Your task to perform on an android device: open app "Paramount+ | Peak Streaming" (install if not already installed) Image 0: 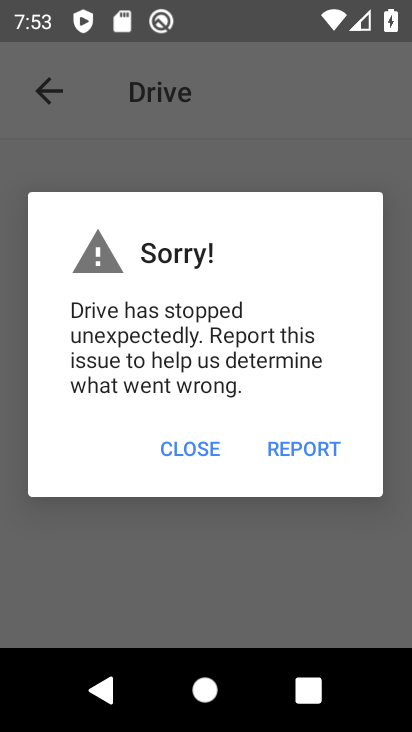
Step 0: press home button
Your task to perform on an android device: open app "Paramount+ | Peak Streaming" (install if not already installed) Image 1: 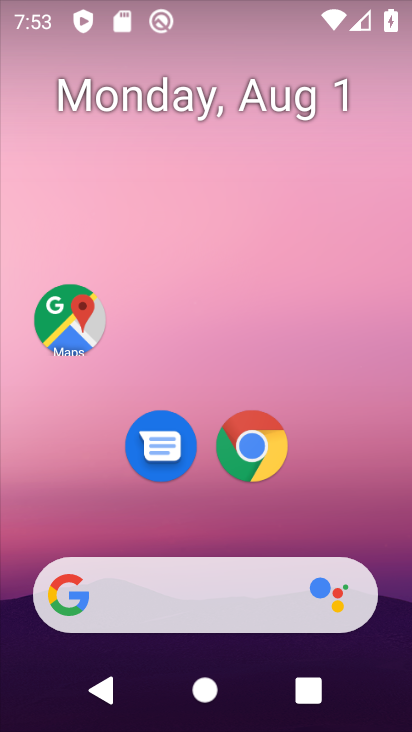
Step 1: drag from (216, 480) to (216, 202)
Your task to perform on an android device: open app "Paramount+ | Peak Streaming" (install if not already installed) Image 2: 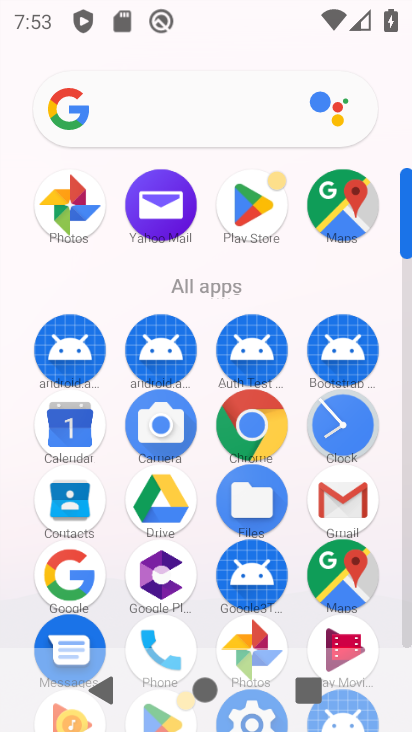
Step 2: click (240, 176)
Your task to perform on an android device: open app "Paramount+ | Peak Streaming" (install if not already installed) Image 3: 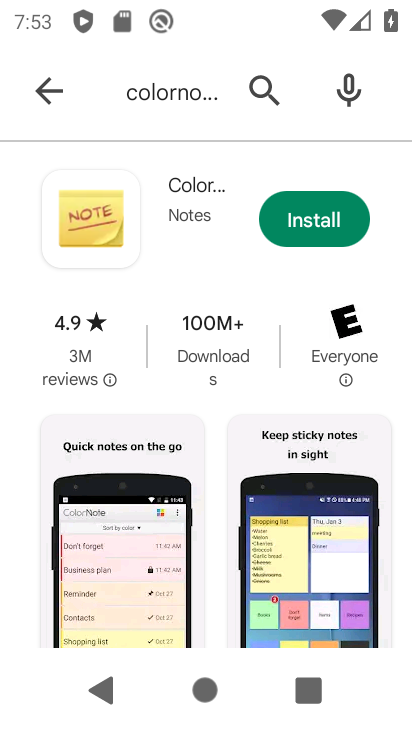
Step 3: click (264, 94)
Your task to perform on an android device: open app "Paramount+ | Peak Streaming" (install if not already installed) Image 4: 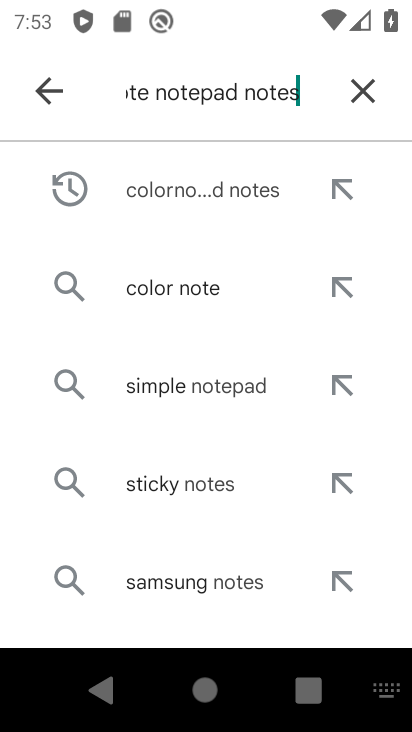
Step 4: click (362, 87)
Your task to perform on an android device: open app "Paramount+ | Peak Streaming" (install if not already installed) Image 5: 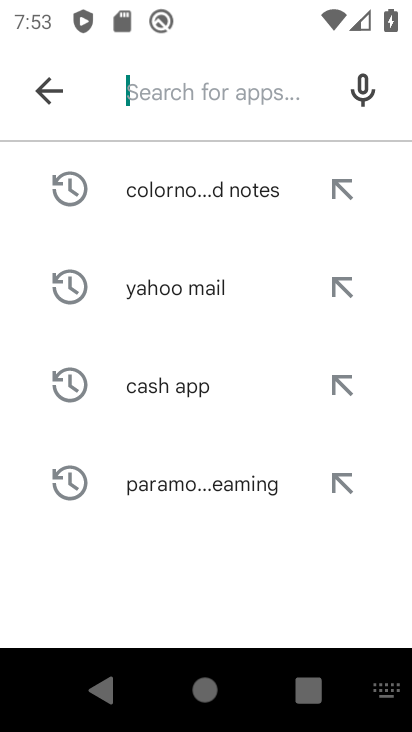
Step 5: type "Paramount+ | Peak Streaming"
Your task to perform on an android device: open app "Paramount+ | Peak Streaming" (install if not already installed) Image 6: 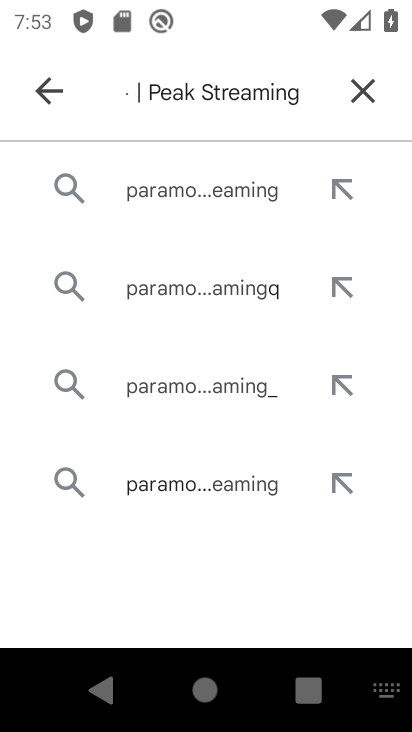
Step 6: type ""
Your task to perform on an android device: open app "Paramount+ | Peak Streaming" (install if not already installed) Image 7: 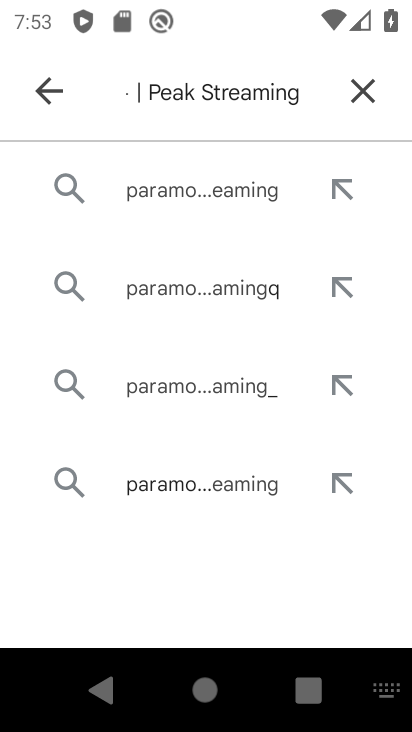
Step 7: click (192, 191)
Your task to perform on an android device: open app "Paramount+ | Peak Streaming" (install if not already installed) Image 8: 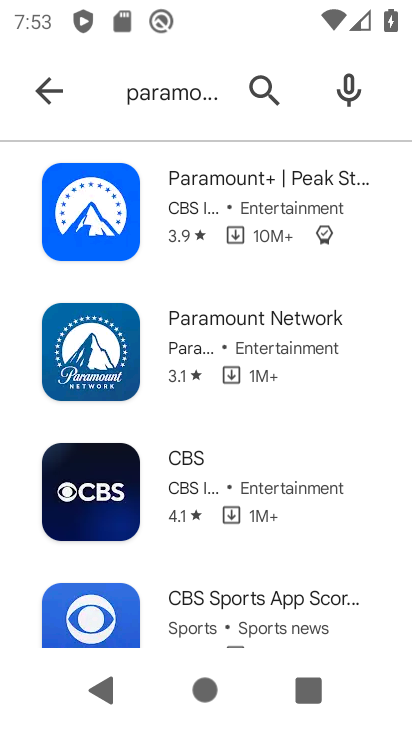
Step 8: click (192, 191)
Your task to perform on an android device: open app "Paramount+ | Peak Streaming" (install if not already installed) Image 9: 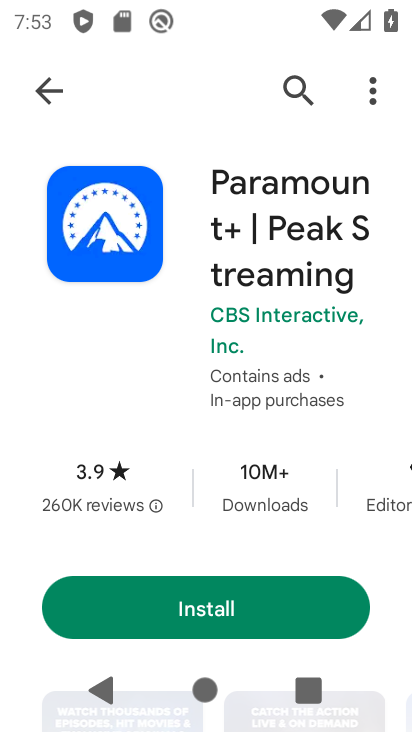
Step 9: click (226, 604)
Your task to perform on an android device: open app "Paramount+ | Peak Streaming" (install if not already installed) Image 10: 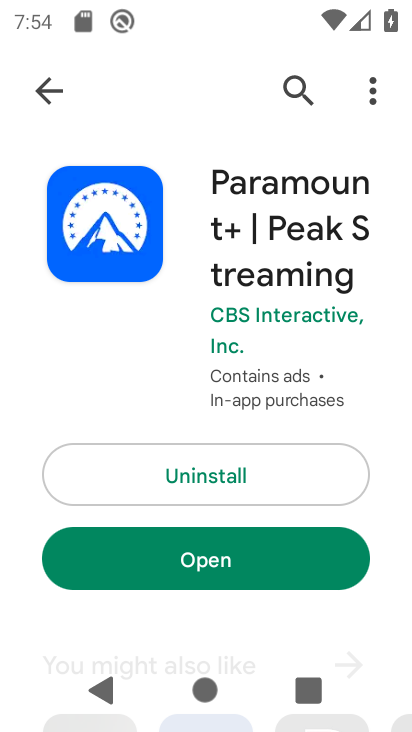
Step 10: click (247, 568)
Your task to perform on an android device: open app "Paramount+ | Peak Streaming" (install if not already installed) Image 11: 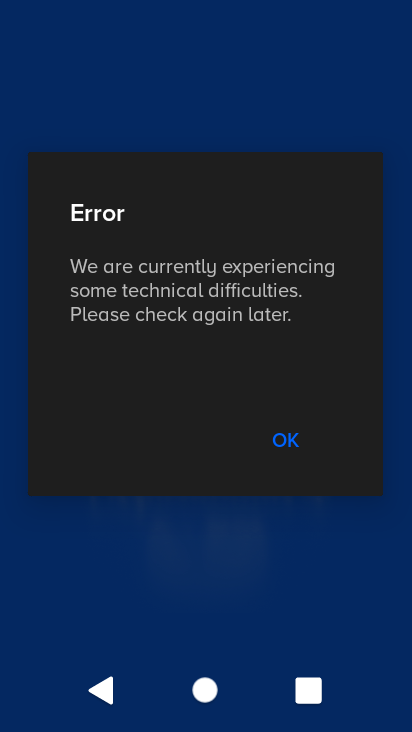
Step 11: task complete